Your task to perform on an android device: choose inbox layout in the gmail app Image 0: 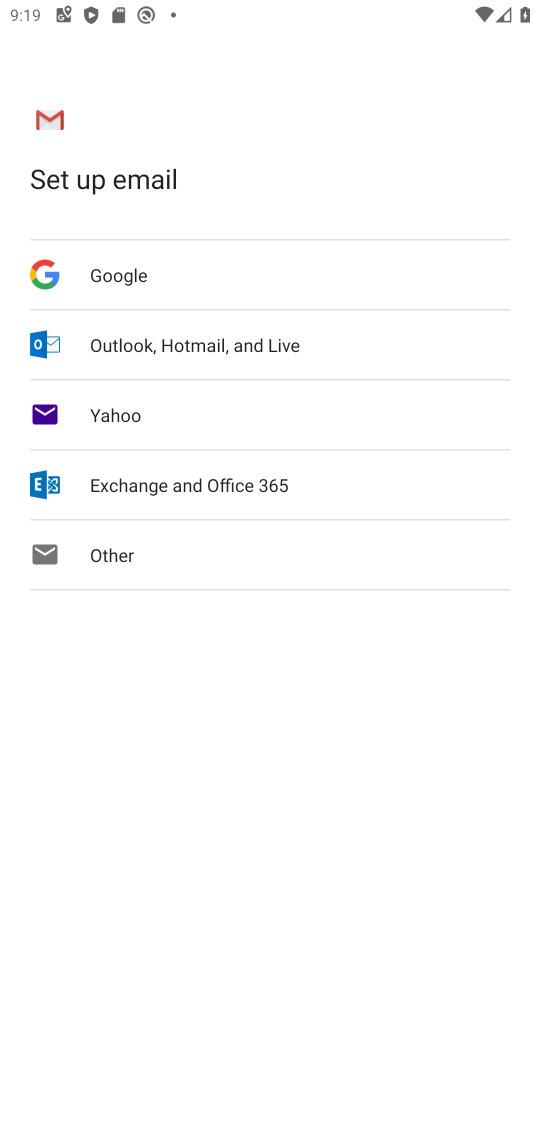
Step 0: press back button
Your task to perform on an android device: choose inbox layout in the gmail app Image 1: 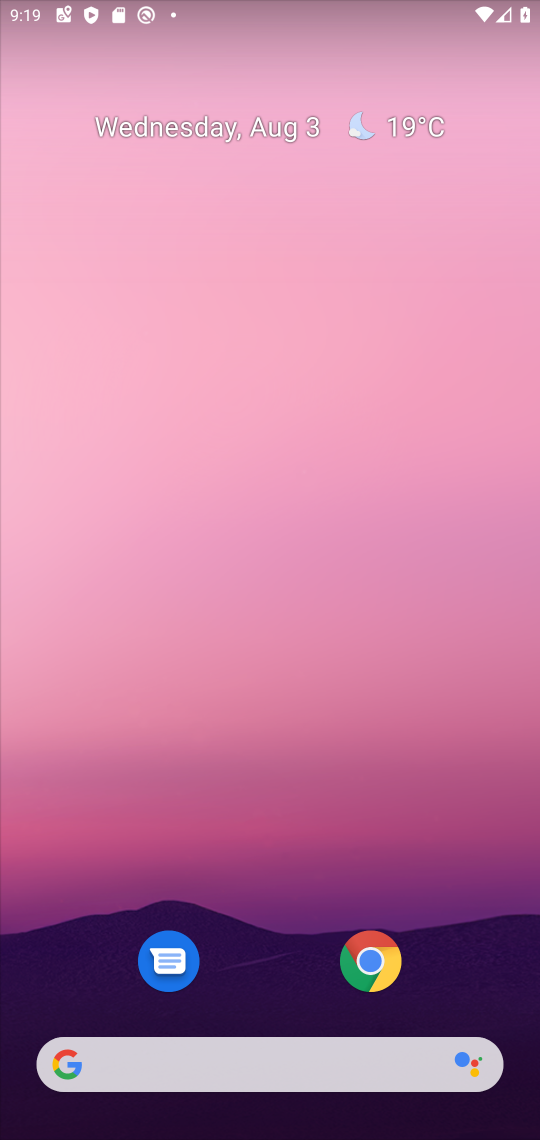
Step 1: drag from (208, 930) to (183, 339)
Your task to perform on an android device: choose inbox layout in the gmail app Image 2: 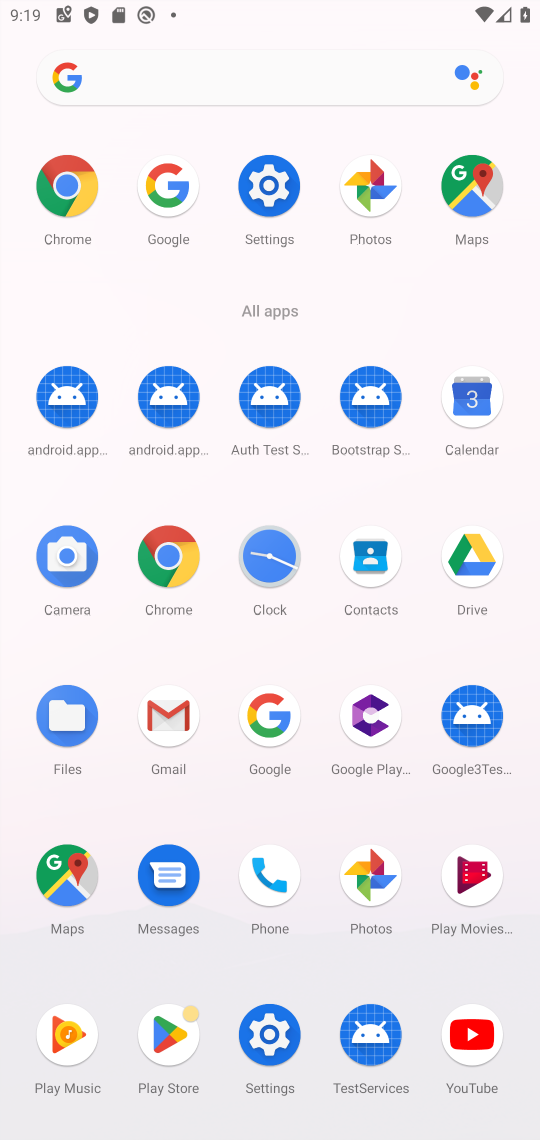
Step 2: click (154, 707)
Your task to perform on an android device: choose inbox layout in the gmail app Image 3: 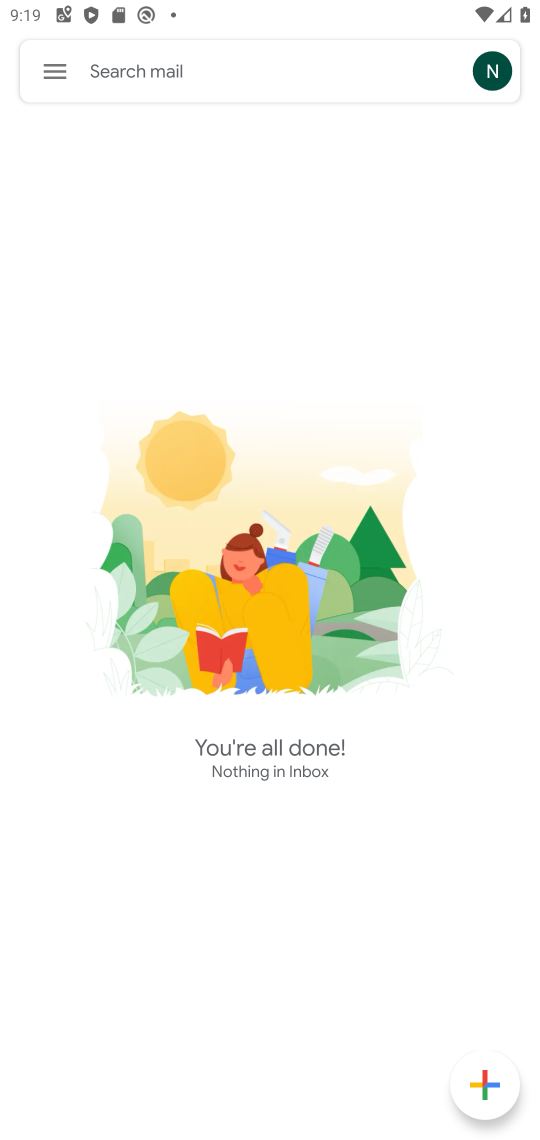
Step 3: click (49, 73)
Your task to perform on an android device: choose inbox layout in the gmail app Image 4: 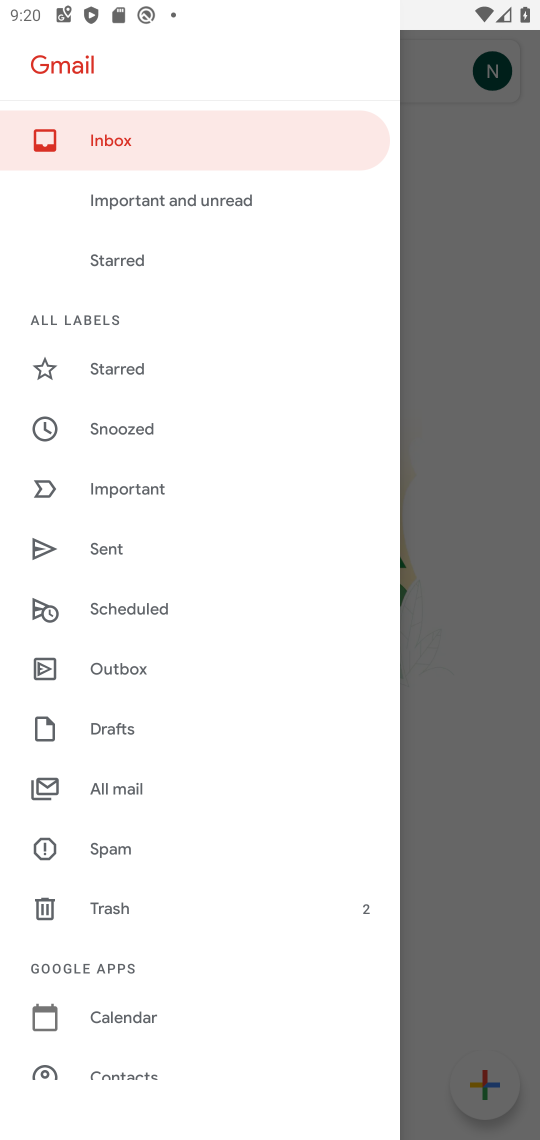
Step 4: click (176, 1063)
Your task to perform on an android device: choose inbox layout in the gmail app Image 5: 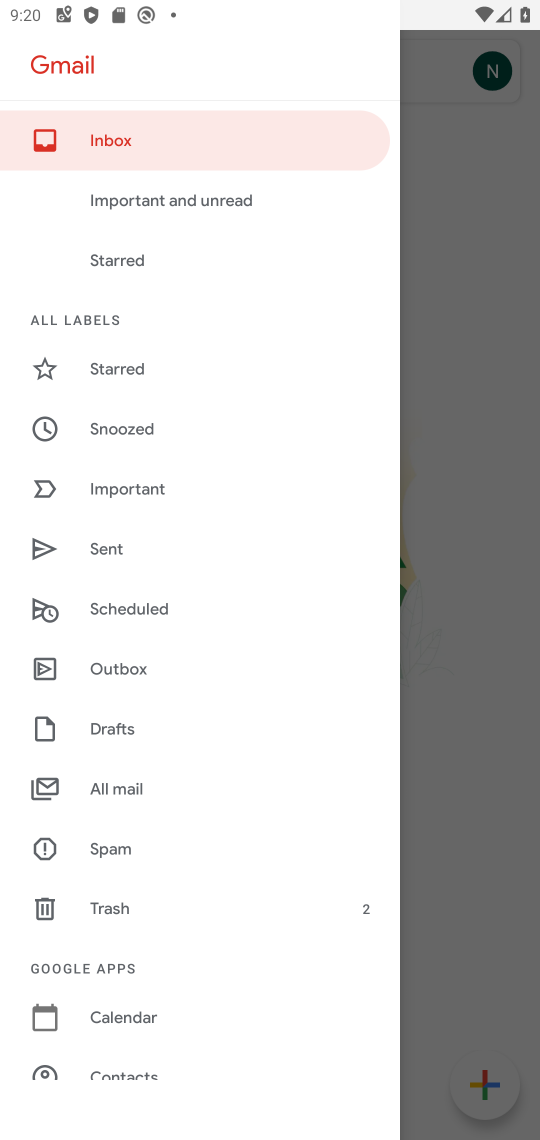
Step 5: click (131, 149)
Your task to perform on an android device: choose inbox layout in the gmail app Image 6: 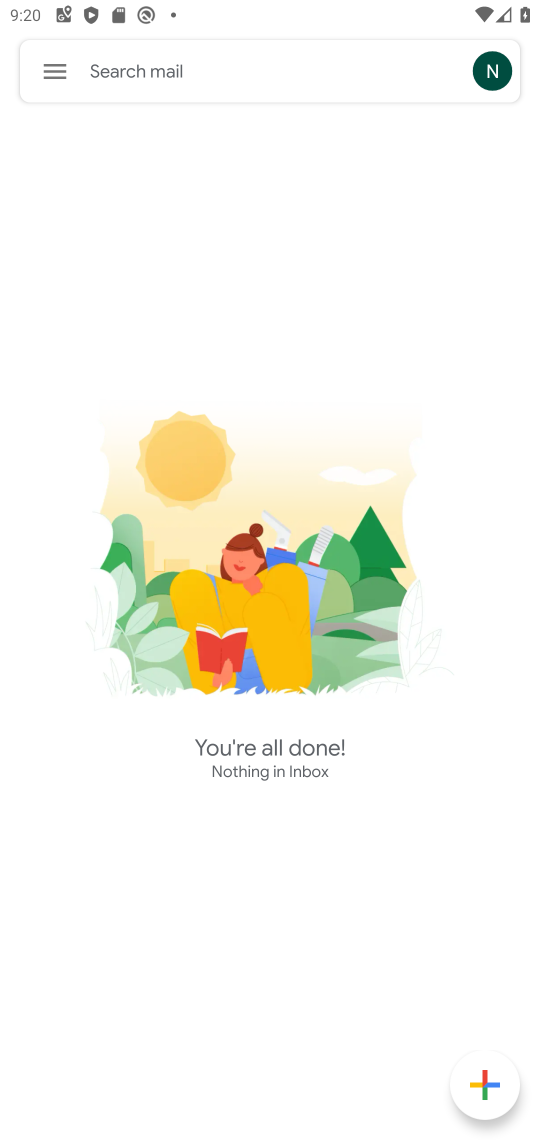
Step 6: task complete